Your task to perform on an android device: turn on data saver in the chrome app Image 0: 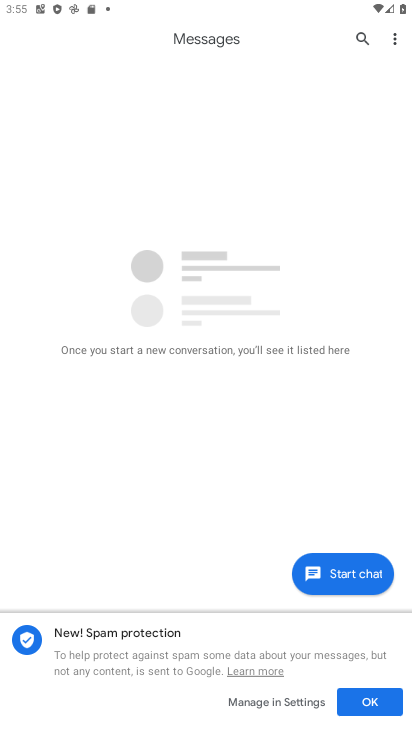
Step 0: task complete